Your task to perform on an android device: Open location settings Image 0: 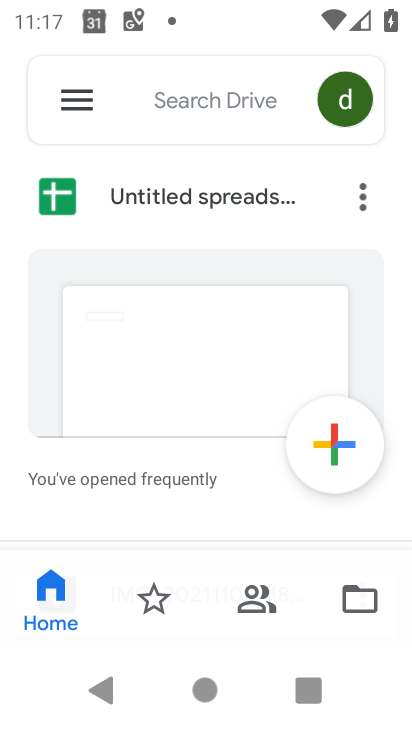
Step 0: press home button
Your task to perform on an android device: Open location settings Image 1: 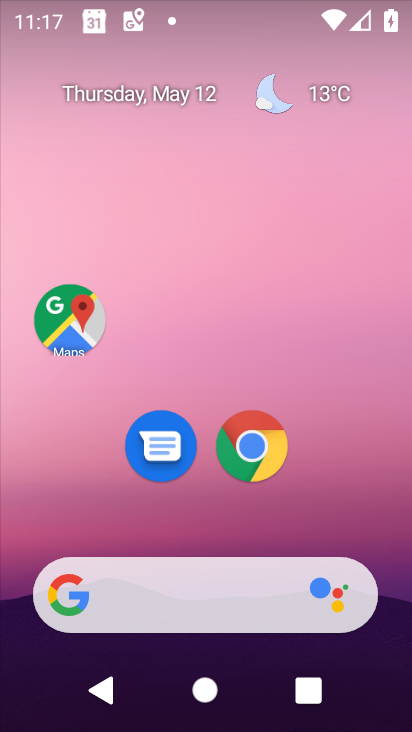
Step 1: drag from (249, 671) to (302, 9)
Your task to perform on an android device: Open location settings Image 2: 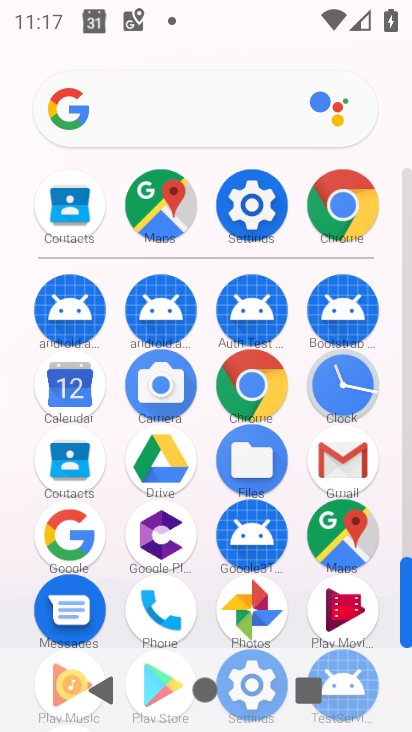
Step 2: click (258, 202)
Your task to perform on an android device: Open location settings Image 3: 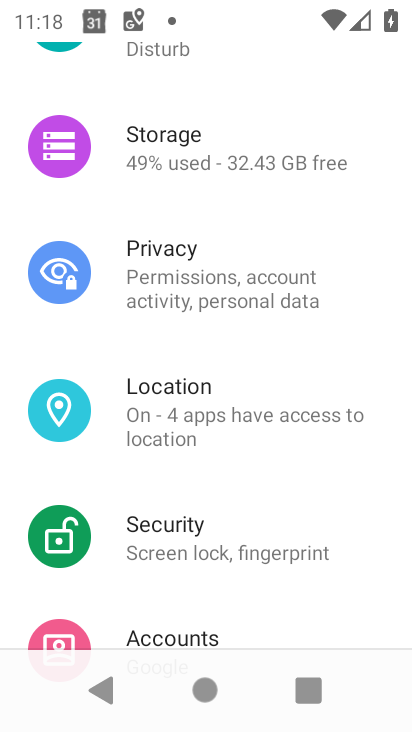
Step 3: click (189, 398)
Your task to perform on an android device: Open location settings Image 4: 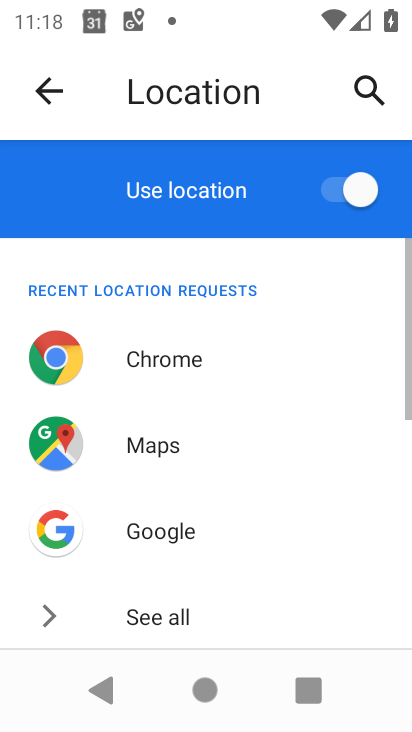
Step 4: task complete